Your task to perform on an android device: all mails in gmail Image 0: 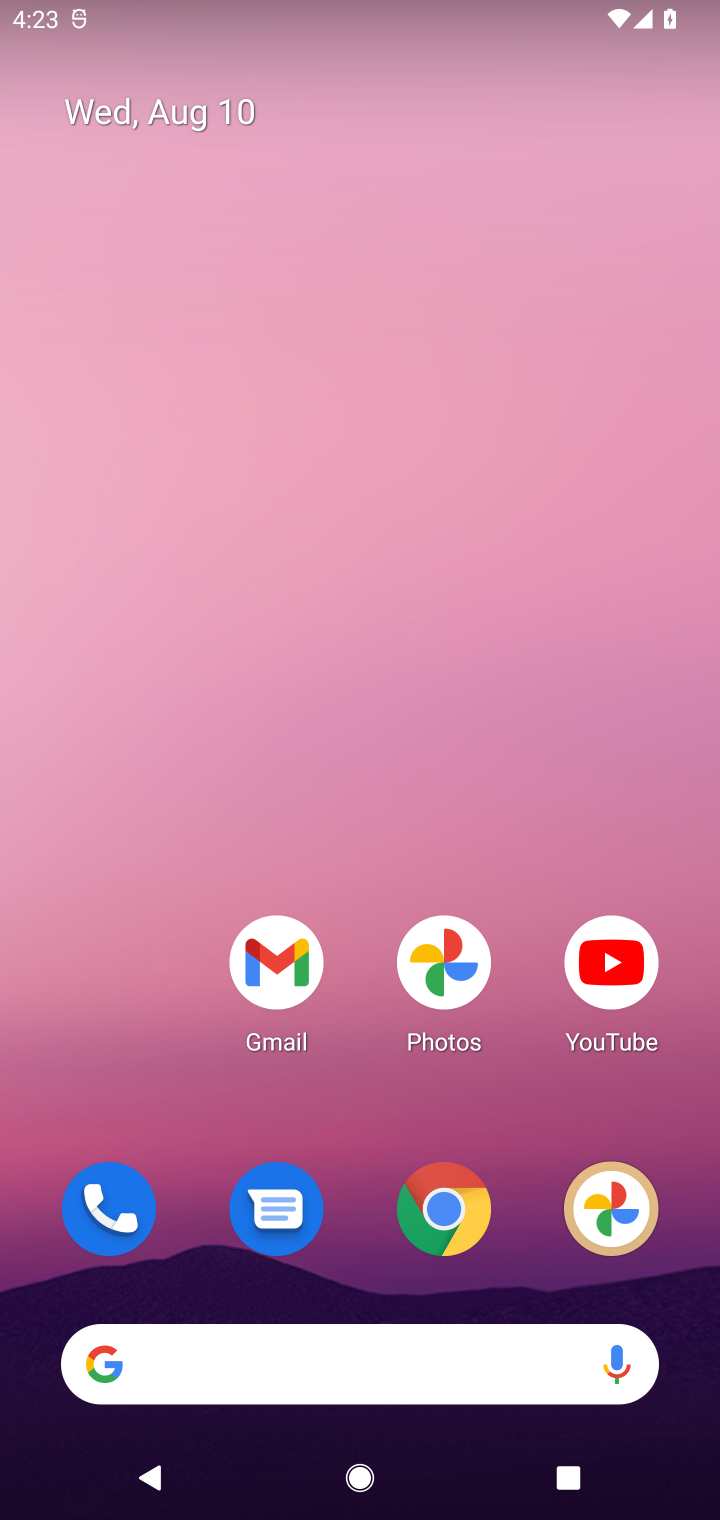
Step 0: click (300, 963)
Your task to perform on an android device: all mails in gmail Image 1: 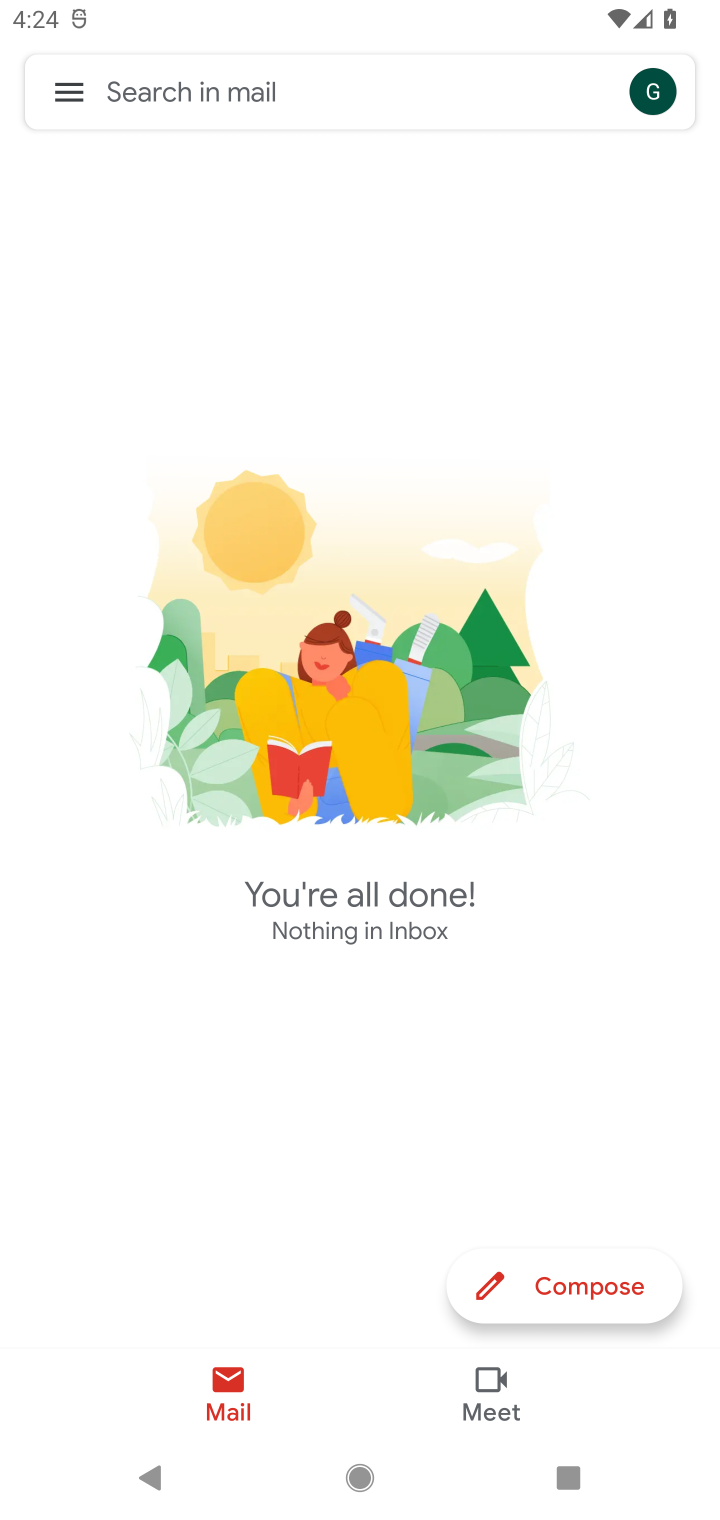
Step 1: click (74, 113)
Your task to perform on an android device: all mails in gmail Image 2: 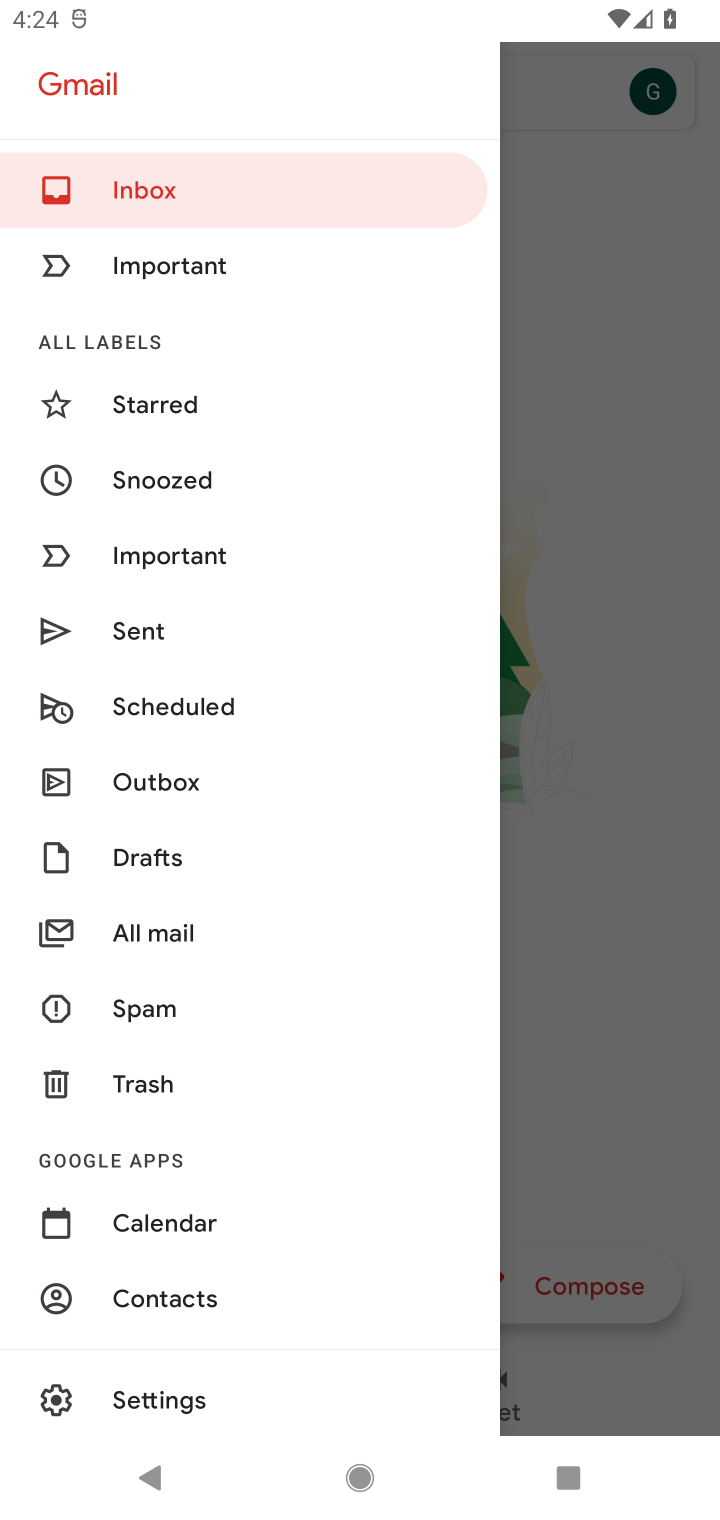
Step 2: click (200, 963)
Your task to perform on an android device: all mails in gmail Image 3: 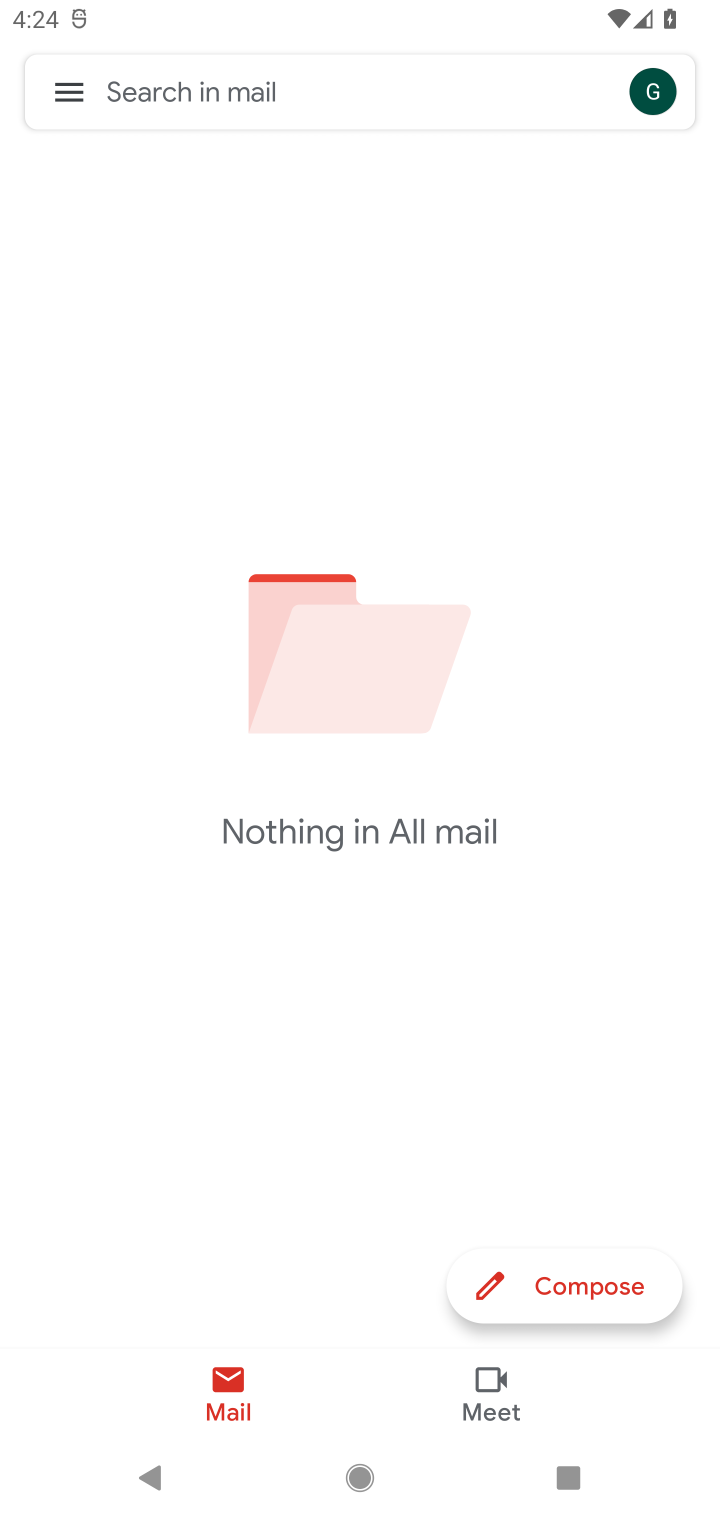
Step 3: task complete